Your task to perform on an android device: Go to ESPN.com Image 0: 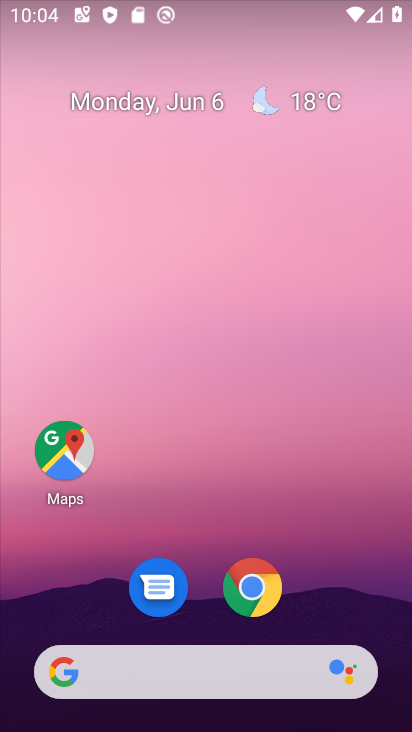
Step 0: click (260, 597)
Your task to perform on an android device: Go to ESPN.com Image 1: 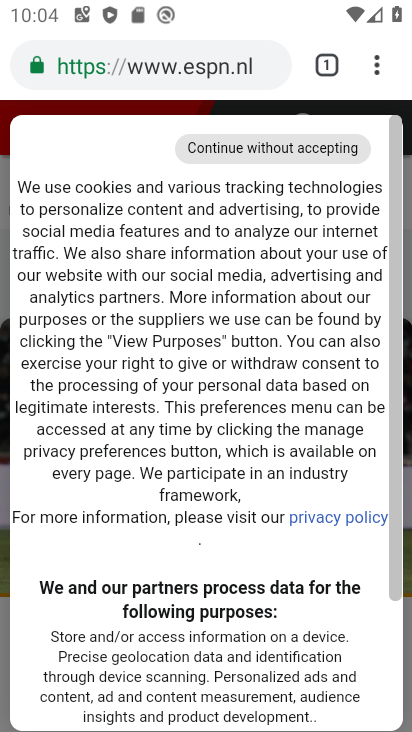
Step 1: task complete